Your task to perform on an android device: Go to Wikipedia Image 0: 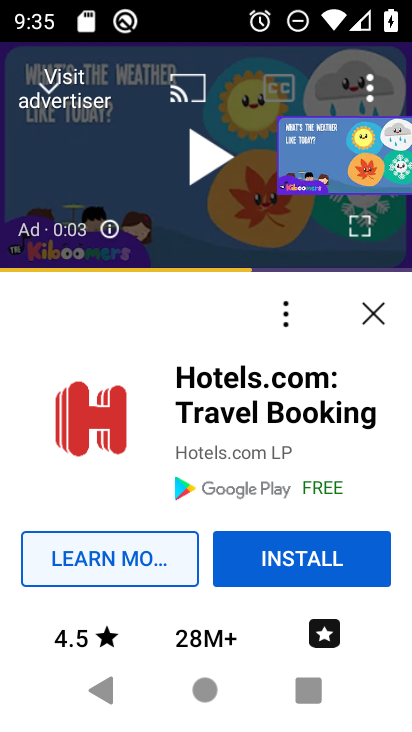
Step 0: press home button
Your task to perform on an android device: Go to Wikipedia Image 1: 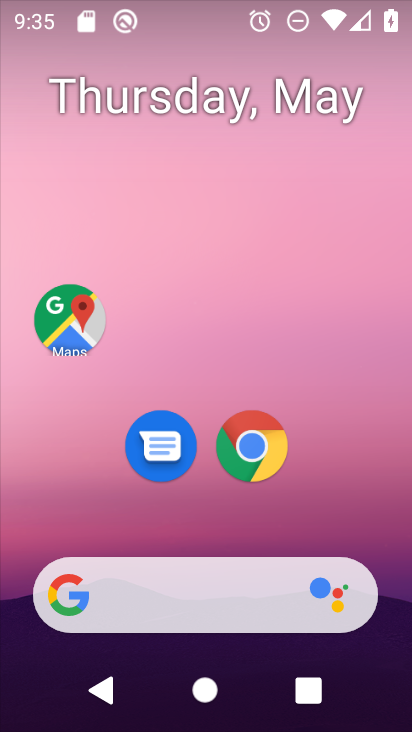
Step 1: drag from (345, 514) to (349, 161)
Your task to perform on an android device: Go to Wikipedia Image 2: 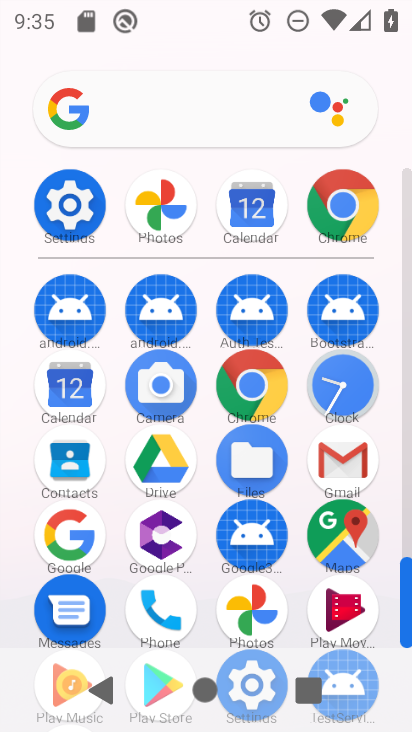
Step 2: click (264, 405)
Your task to perform on an android device: Go to Wikipedia Image 3: 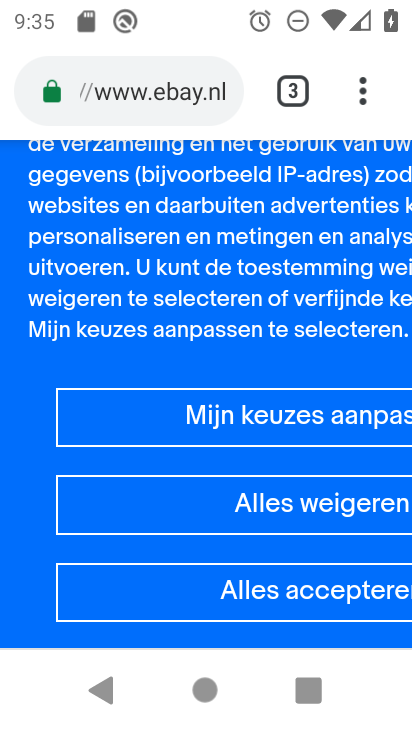
Step 3: click (194, 96)
Your task to perform on an android device: Go to Wikipedia Image 4: 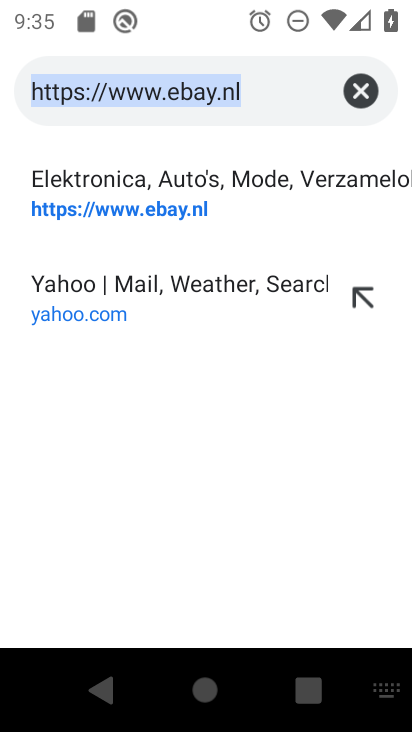
Step 4: click (358, 92)
Your task to perform on an android device: Go to Wikipedia Image 5: 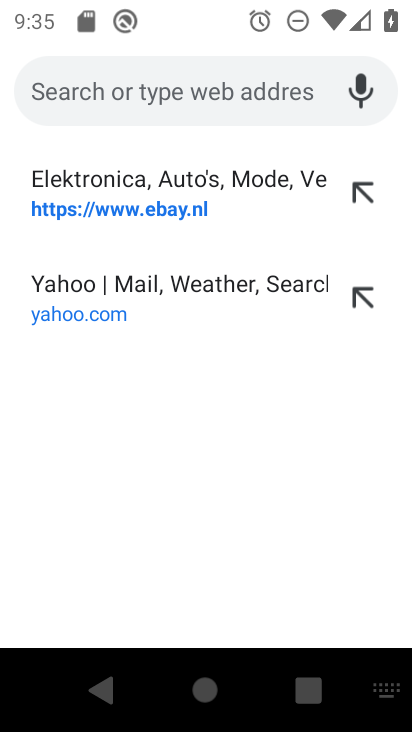
Step 5: type "wikipedia"
Your task to perform on an android device: Go to Wikipedia Image 6: 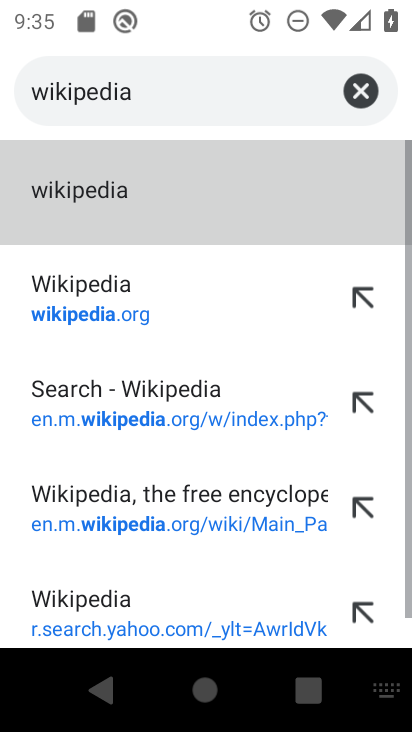
Step 6: click (113, 197)
Your task to perform on an android device: Go to Wikipedia Image 7: 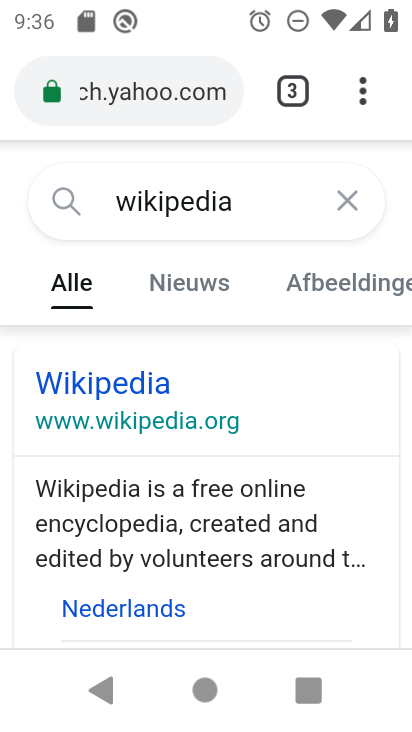
Step 7: click (124, 408)
Your task to perform on an android device: Go to Wikipedia Image 8: 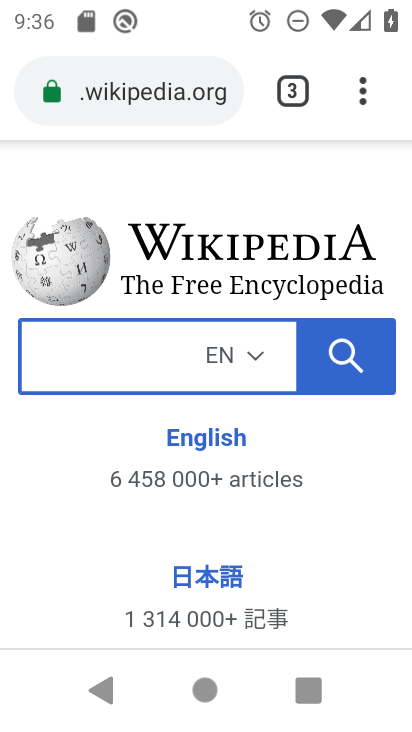
Step 8: task complete